Your task to perform on an android device: Go to ESPN.com Image 0: 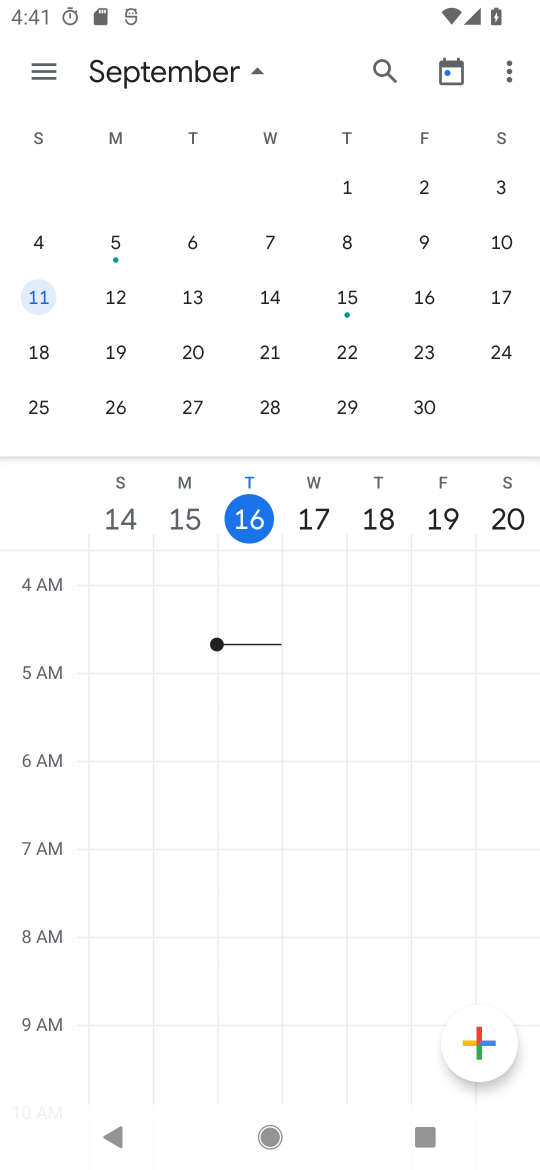
Step 0: press home button
Your task to perform on an android device: Go to ESPN.com Image 1: 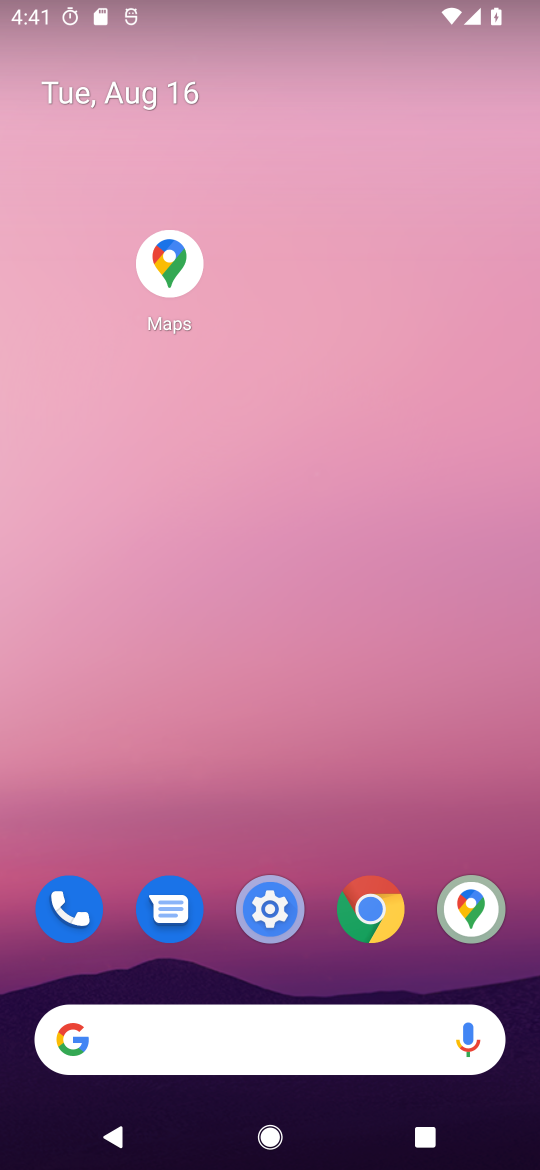
Step 1: click (366, 895)
Your task to perform on an android device: Go to ESPN.com Image 2: 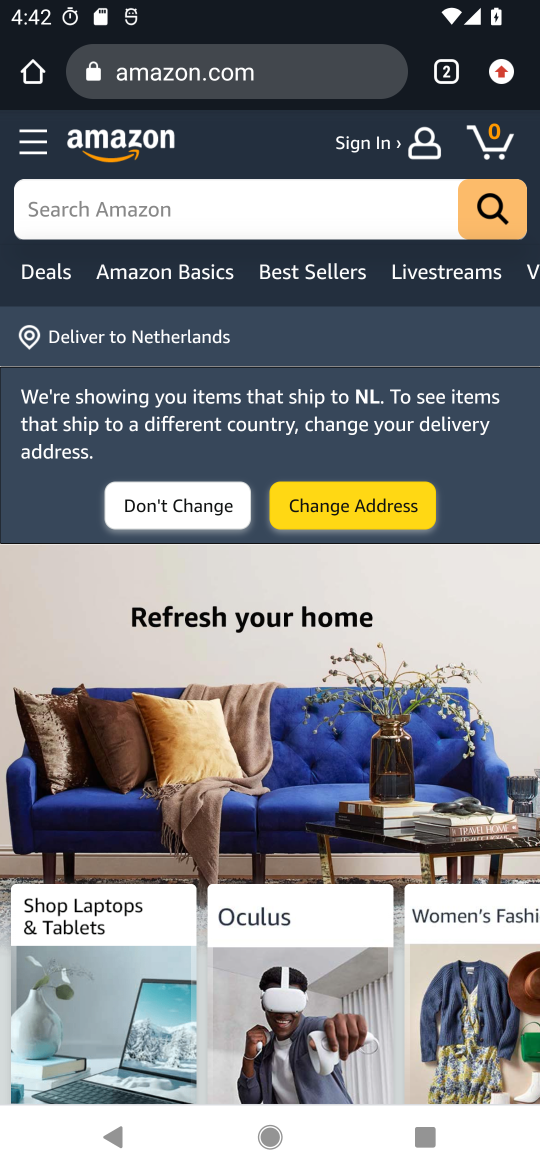
Step 2: click (227, 92)
Your task to perform on an android device: Go to ESPN.com Image 3: 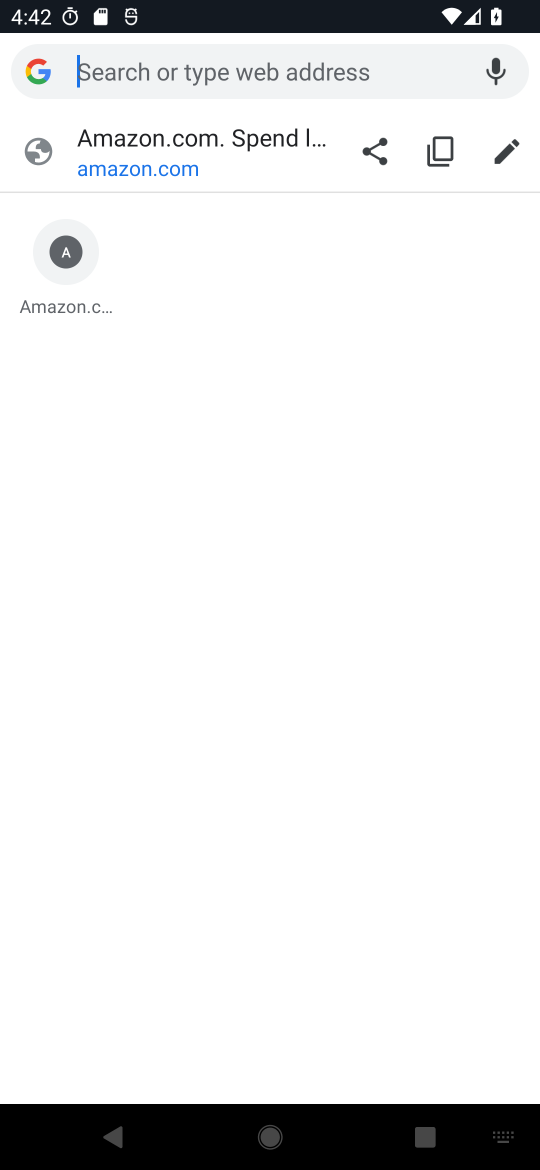
Step 3: type "www.espn.com"
Your task to perform on an android device: Go to ESPN.com Image 4: 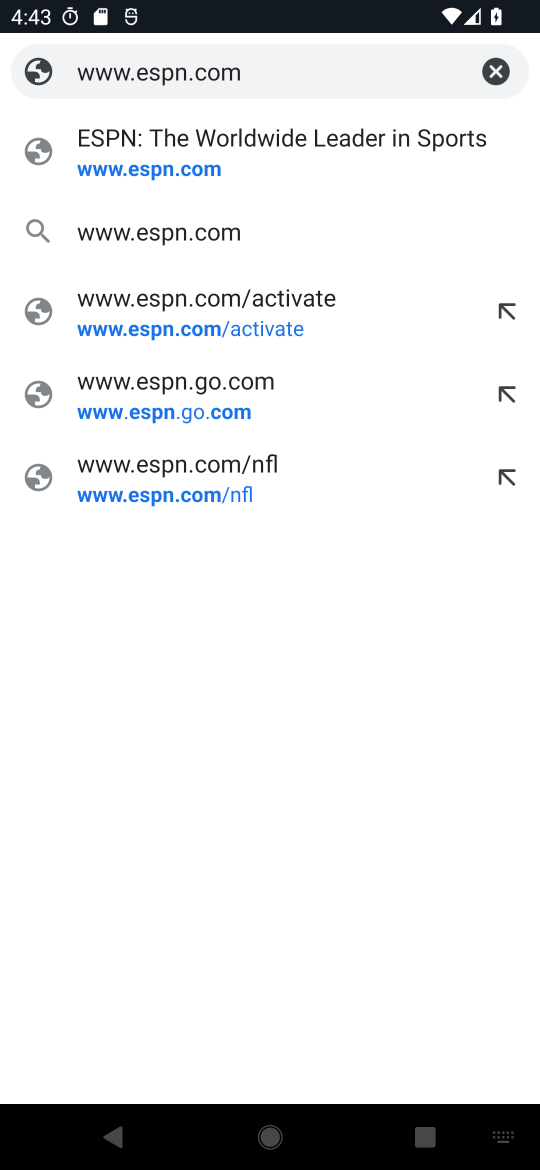
Step 4: click (177, 163)
Your task to perform on an android device: Go to ESPN.com Image 5: 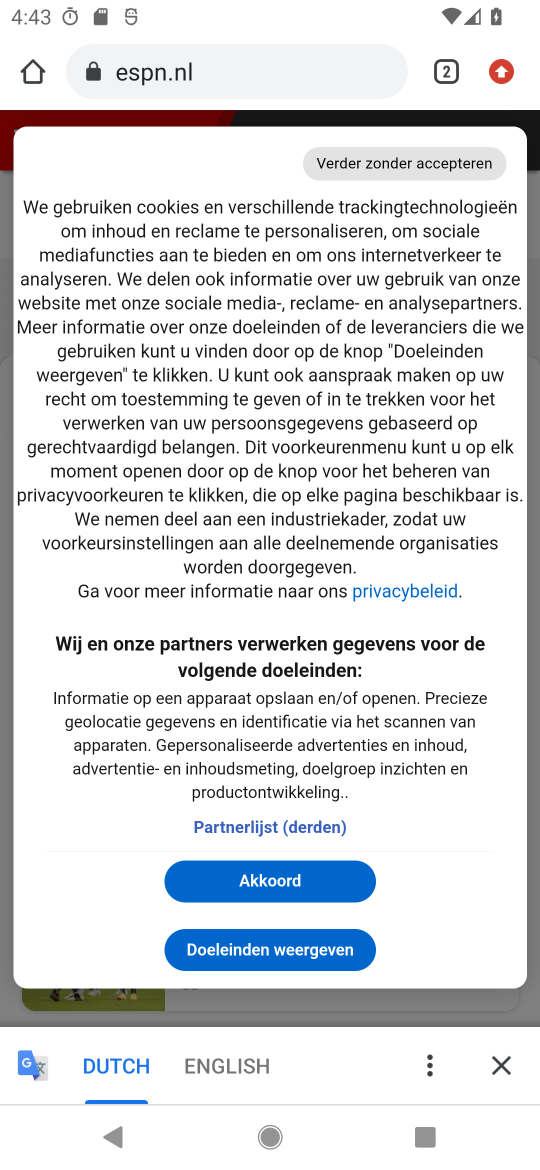
Step 5: task complete